Your task to perform on an android device: When is my next appointment? Image 0: 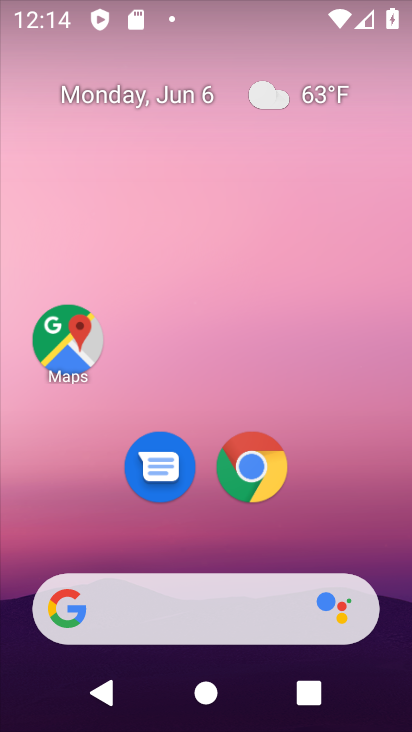
Step 0: drag from (398, 660) to (401, 552)
Your task to perform on an android device: When is my next appointment? Image 1: 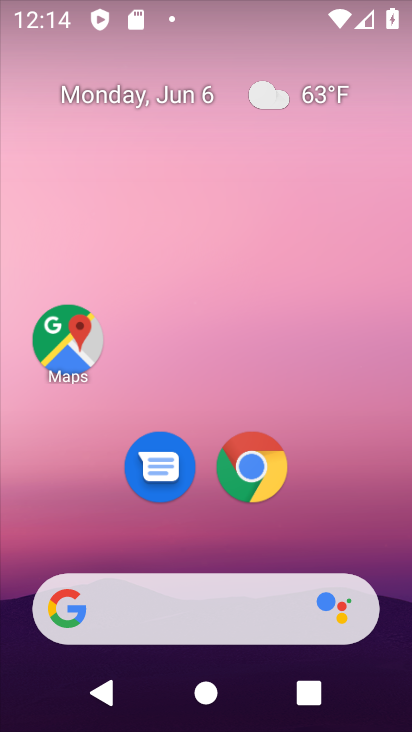
Step 1: click (377, 602)
Your task to perform on an android device: When is my next appointment? Image 2: 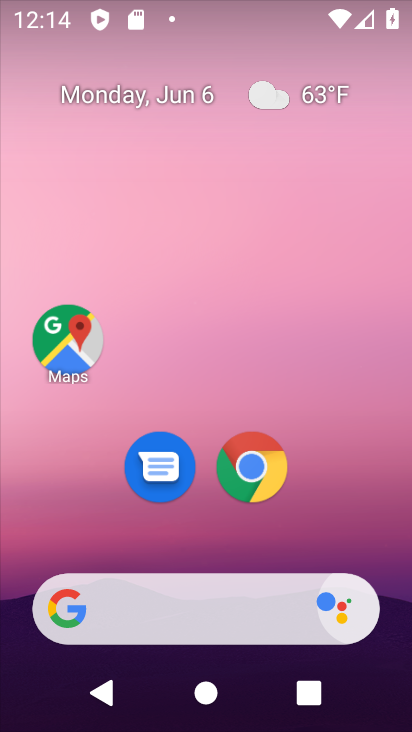
Step 2: drag from (355, 371) to (253, 91)
Your task to perform on an android device: When is my next appointment? Image 3: 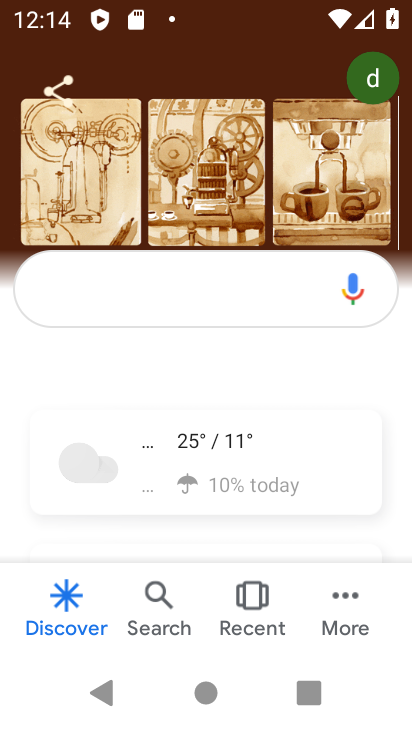
Step 3: press home button
Your task to perform on an android device: When is my next appointment? Image 4: 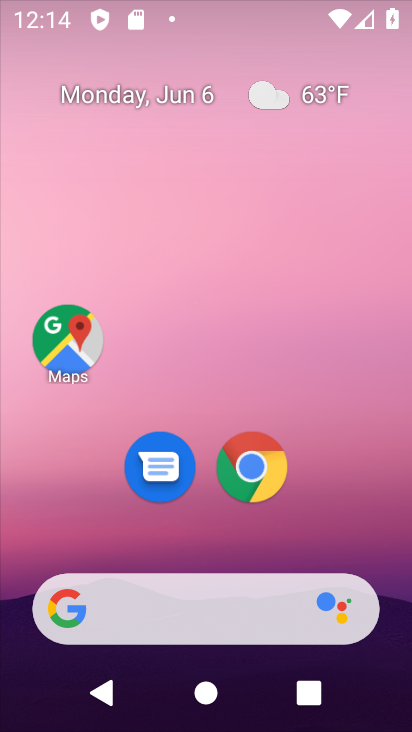
Step 4: drag from (394, 630) to (325, 71)
Your task to perform on an android device: When is my next appointment? Image 5: 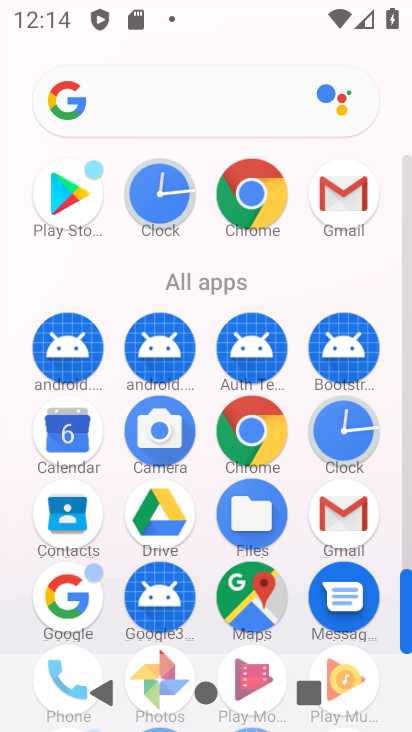
Step 5: click (56, 450)
Your task to perform on an android device: When is my next appointment? Image 6: 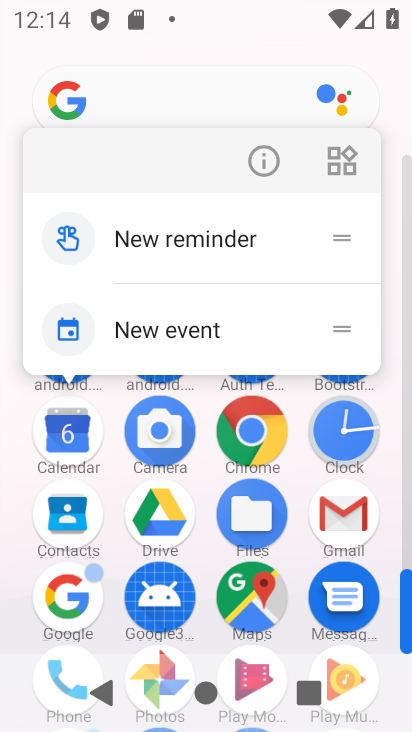
Step 6: click (56, 450)
Your task to perform on an android device: When is my next appointment? Image 7: 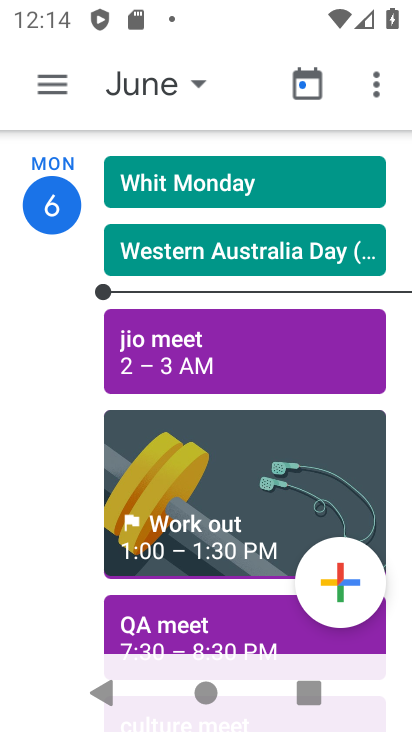
Step 7: task complete